Your task to perform on an android device: empty trash in the gmail app Image 0: 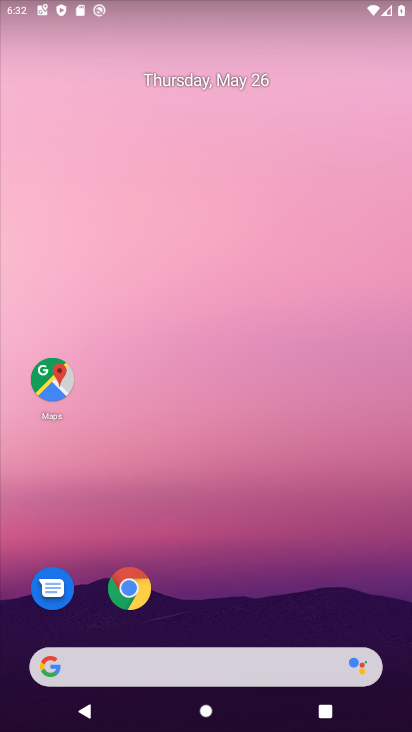
Step 0: drag from (371, 639) to (349, 4)
Your task to perform on an android device: empty trash in the gmail app Image 1: 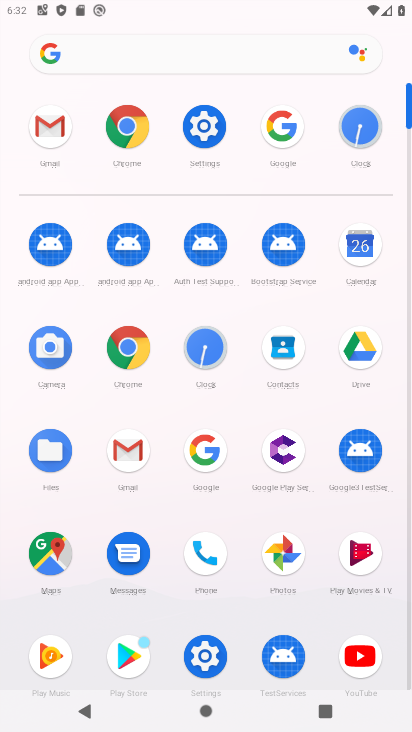
Step 1: click (131, 456)
Your task to perform on an android device: empty trash in the gmail app Image 2: 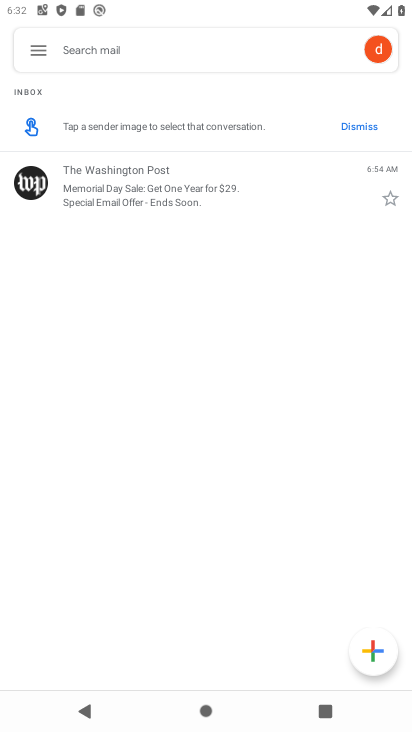
Step 2: click (36, 51)
Your task to perform on an android device: empty trash in the gmail app Image 3: 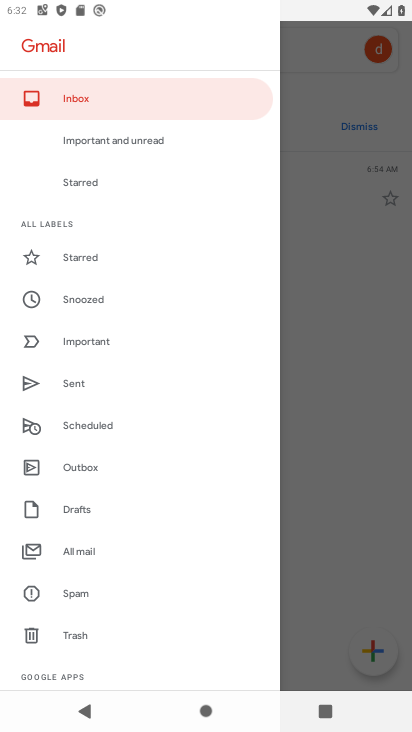
Step 3: click (137, 637)
Your task to perform on an android device: empty trash in the gmail app Image 4: 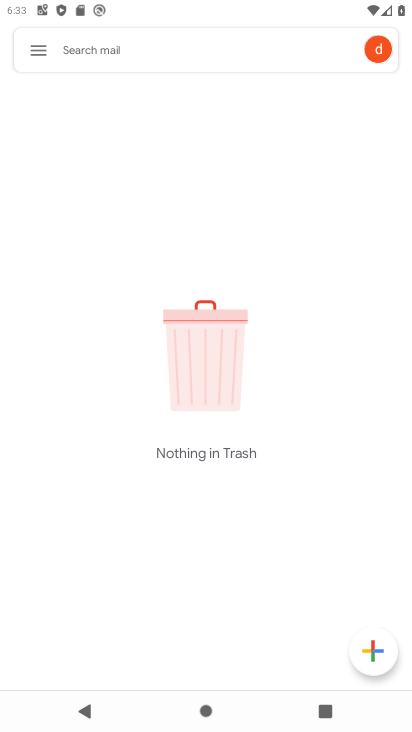
Step 4: task complete